Your task to perform on an android device: Go to privacy settings Image 0: 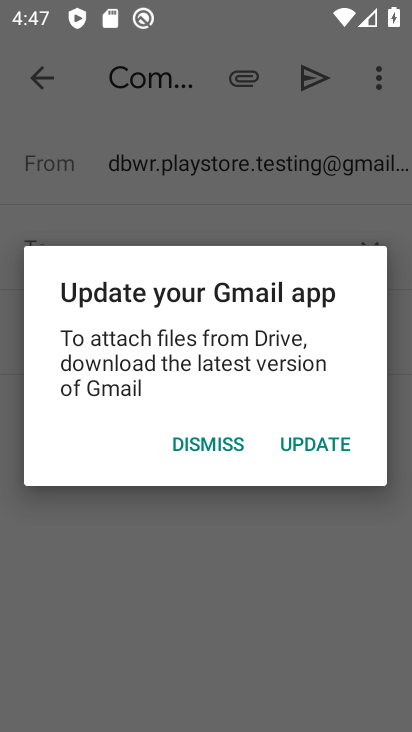
Step 0: press back button
Your task to perform on an android device: Go to privacy settings Image 1: 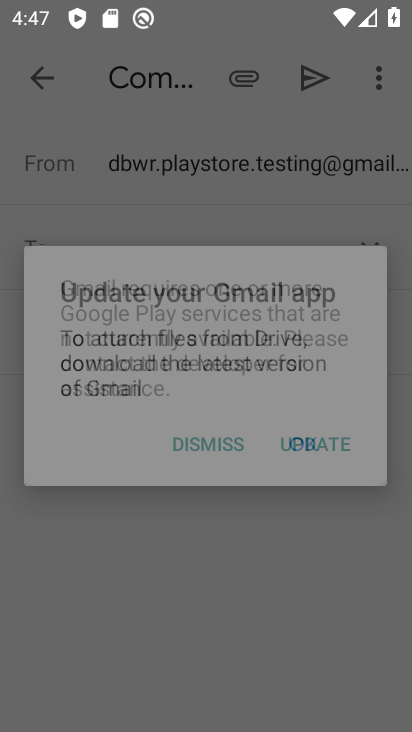
Step 1: press back button
Your task to perform on an android device: Go to privacy settings Image 2: 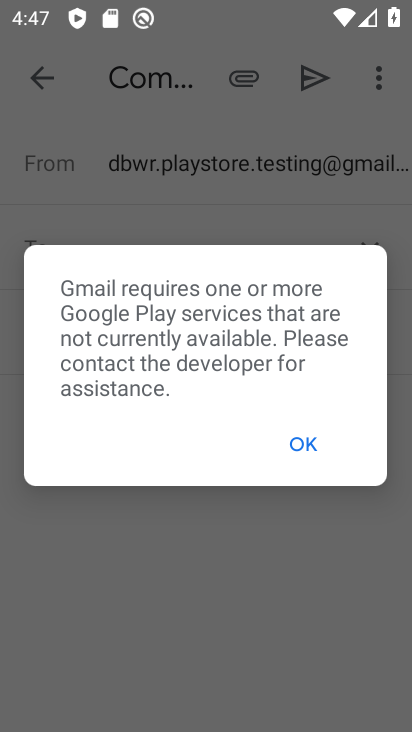
Step 2: press back button
Your task to perform on an android device: Go to privacy settings Image 3: 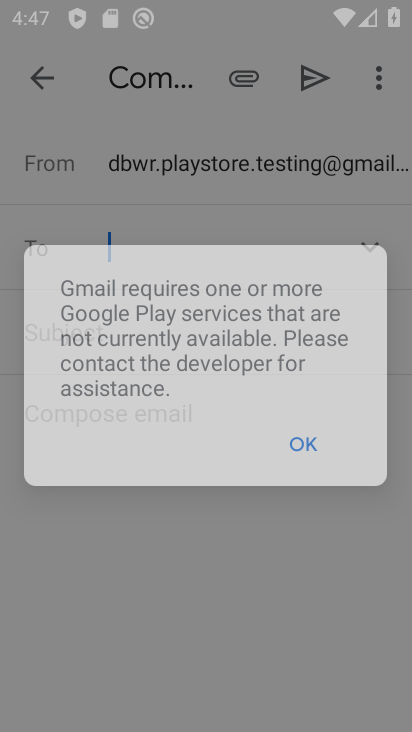
Step 3: press back button
Your task to perform on an android device: Go to privacy settings Image 4: 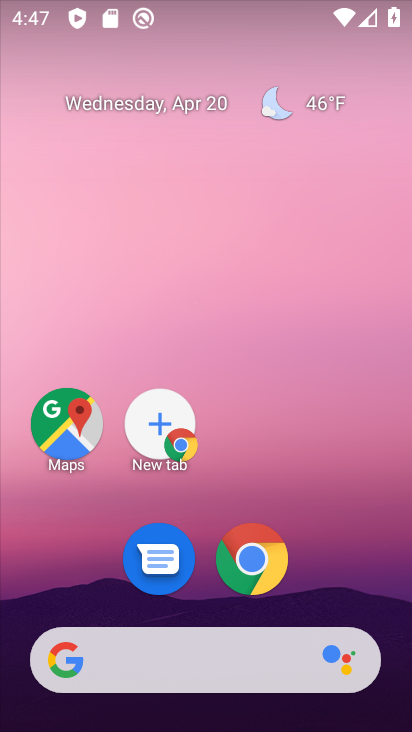
Step 4: drag from (314, 592) to (296, 135)
Your task to perform on an android device: Go to privacy settings Image 5: 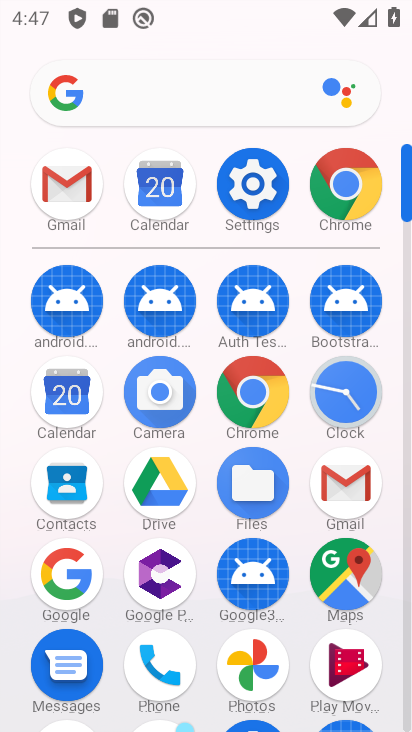
Step 5: click (258, 195)
Your task to perform on an android device: Go to privacy settings Image 6: 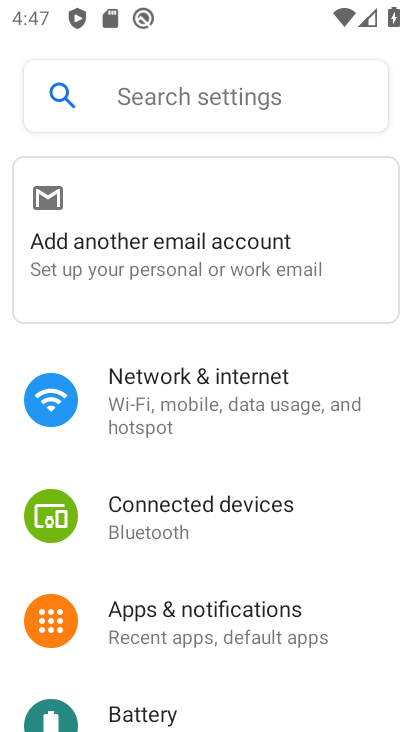
Step 6: drag from (229, 540) to (244, 291)
Your task to perform on an android device: Go to privacy settings Image 7: 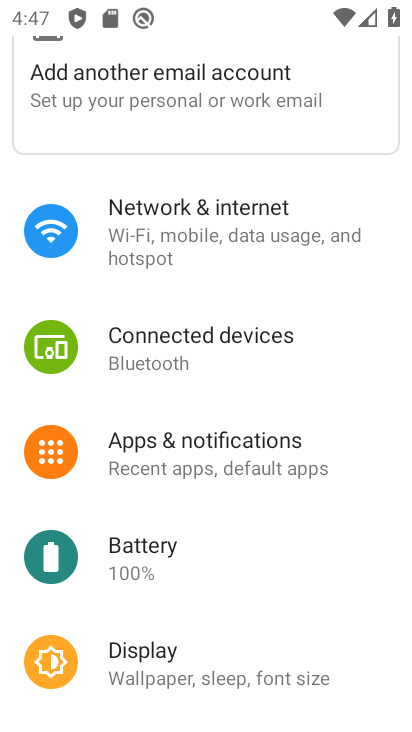
Step 7: drag from (223, 614) to (225, 488)
Your task to perform on an android device: Go to privacy settings Image 8: 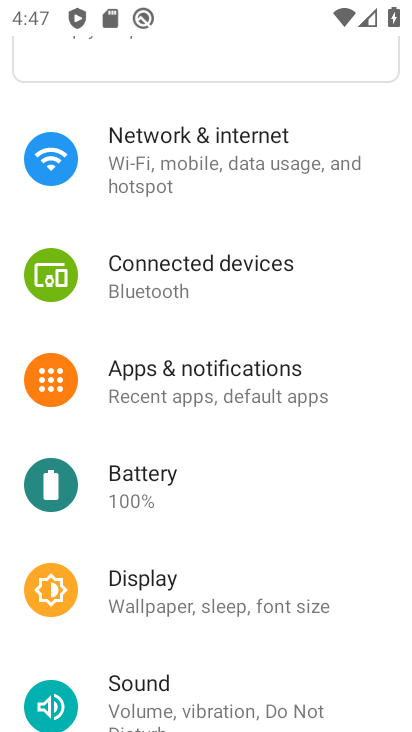
Step 8: drag from (161, 634) to (235, 286)
Your task to perform on an android device: Go to privacy settings Image 9: 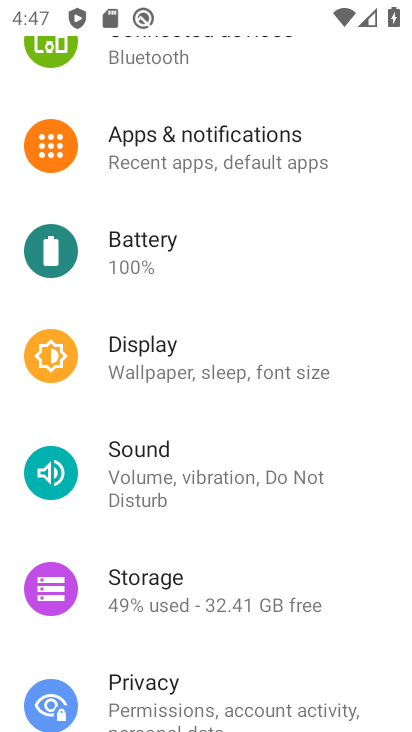
Step 9: click (171, 688)
Your task to perform on an android device: Go to privacy settings Image 10: 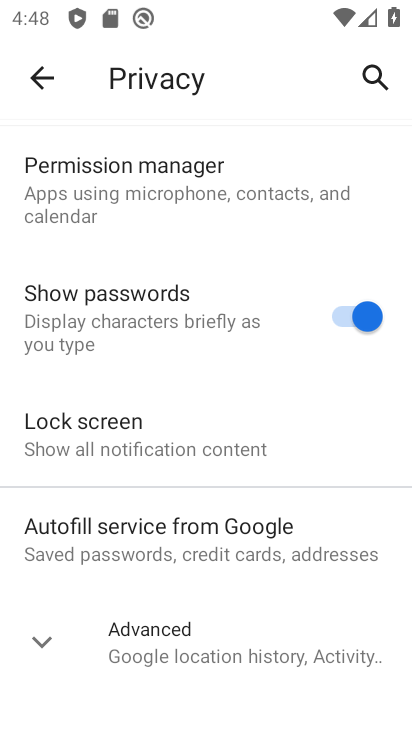
Step 10: task complete